Your task to perform on an android device: See recent photos Image 0: 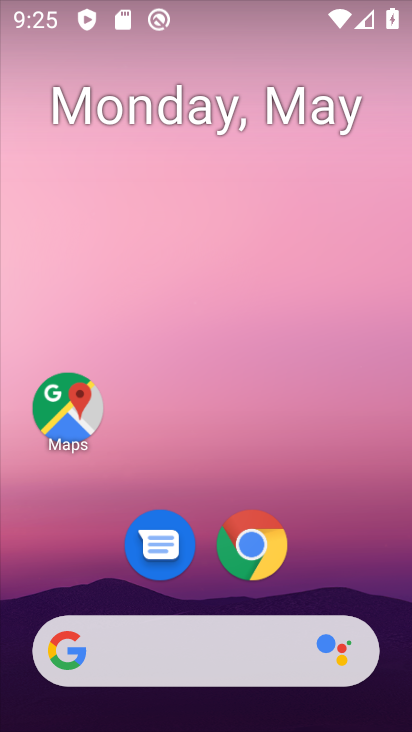
Step 0: drag from (317, 523) to (407, 71)
Your task to perform on an android device: See recent photos Image 1: 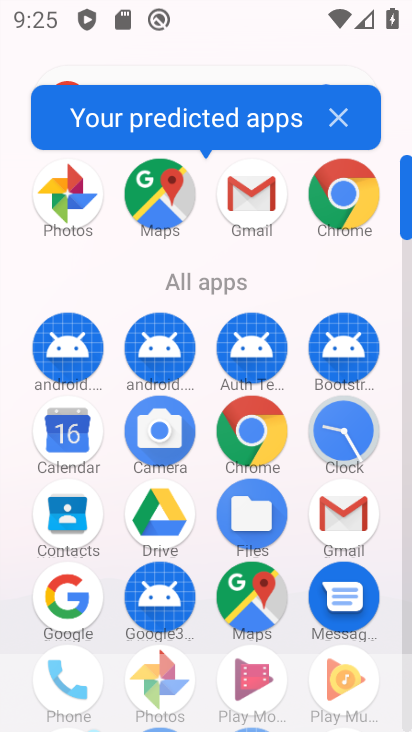
Step 1: click (80, 206)
Your task to perform on an android device: See recent photos Image 2: 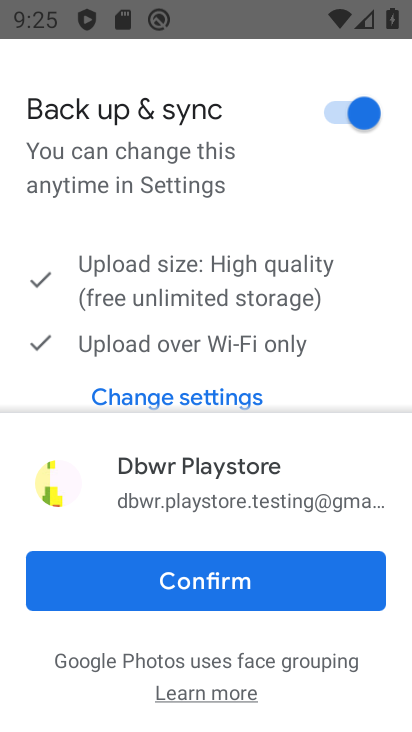
Step 2: click (206, 594)
Your task to perform on an android device: See recent photos Image 3: 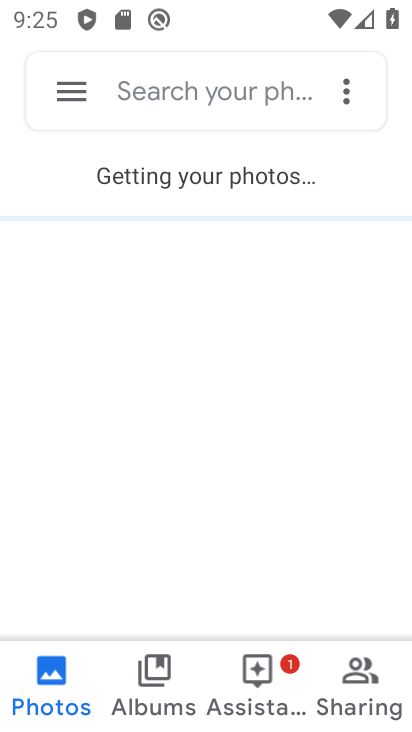
Step 3: click (167, 685)
Your task to perform on an android device: See recent photos Image 4: 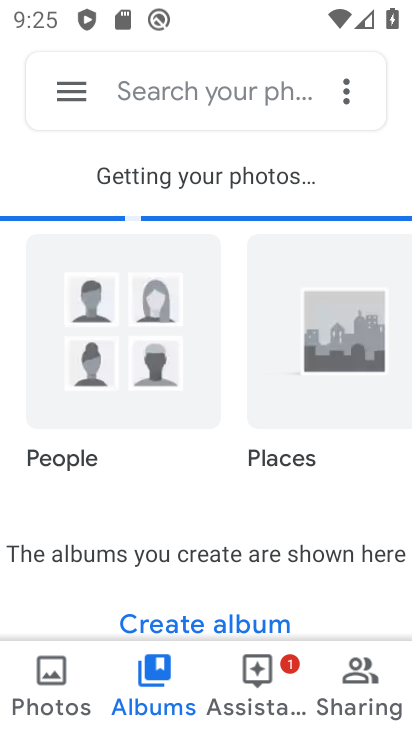
Step 4: click (52, 676)
Your task to perform on an android device: See recent photos Image 5: 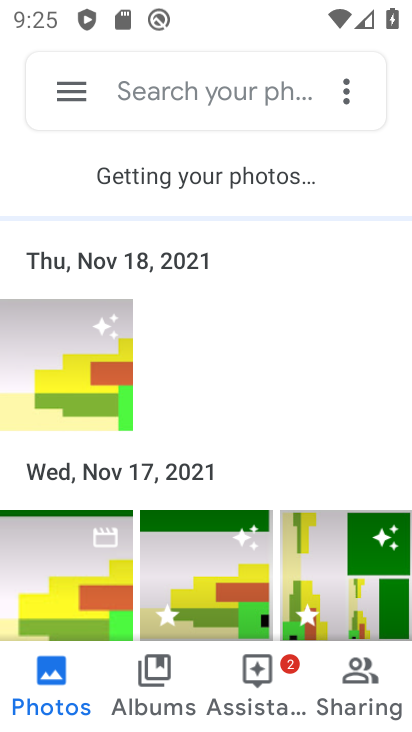
Step 5: task complete